Your task to perform on an android device: allow cookies in the chrome app Image 0: 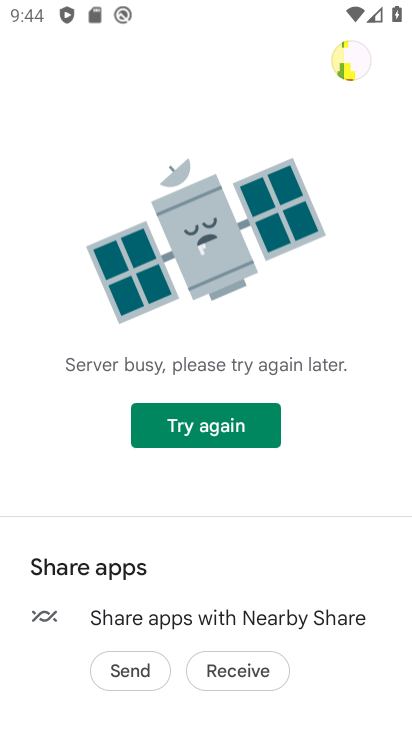
Step 0: press home button
Your task to perform on an android device: allow cookies in the chrome app Image 1: 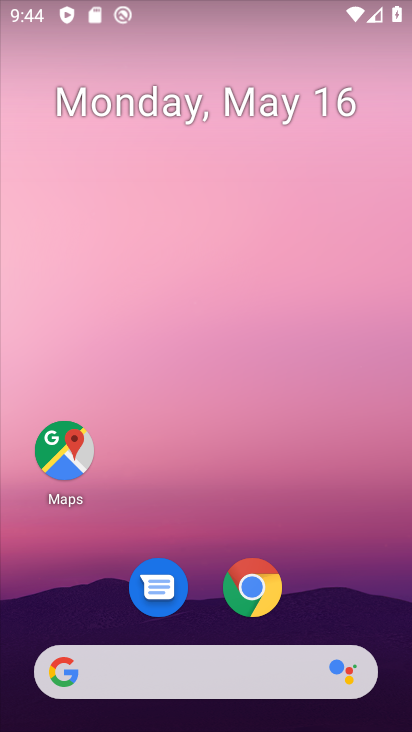
Step 1: click (266, 591)
Your task to perform on an android device: allow cookies in the chrome app Image 2: 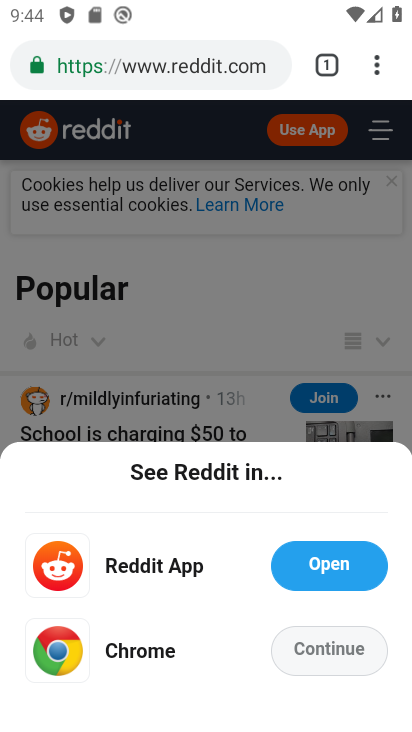
Step 2: click (325, 642)
Your task to perform on an android device: allow cookies in the chrome app Image 3: 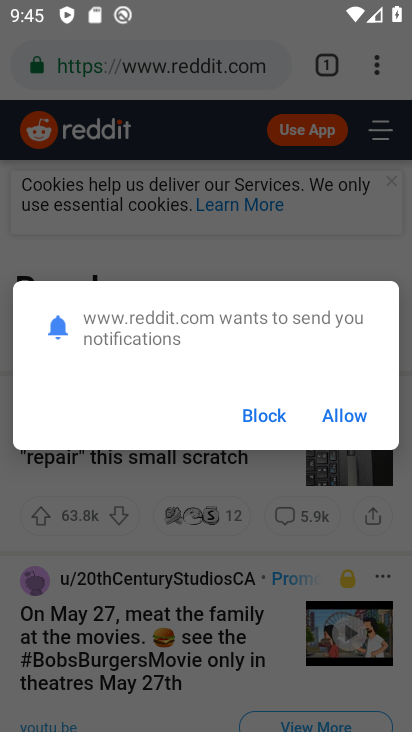
Step 3: click (355, 422)
Your task to perform on an android device: allow cookies in the chrome app Image 4: 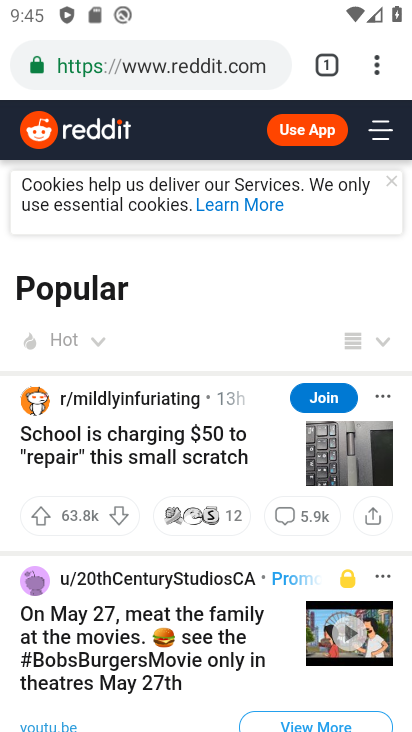
Step 4: click (369, 70)
Your task to perform on an android device: allow cookies in the chrome app Image 5: 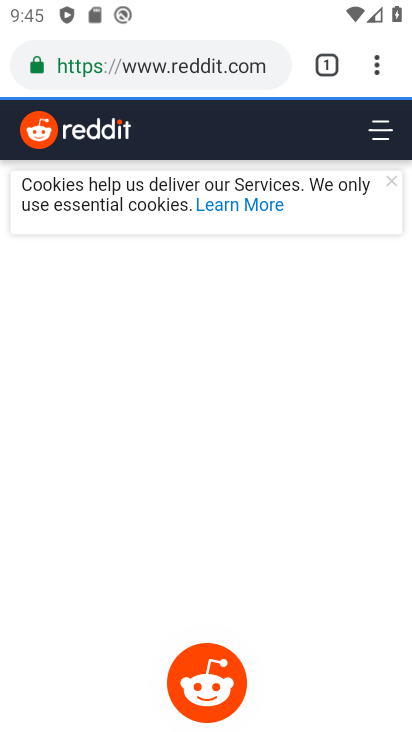
Step 5: drag from (378, 64) to (171, 639)
Your task to perform on an android device: allow cookies in the chrome app Image 6: 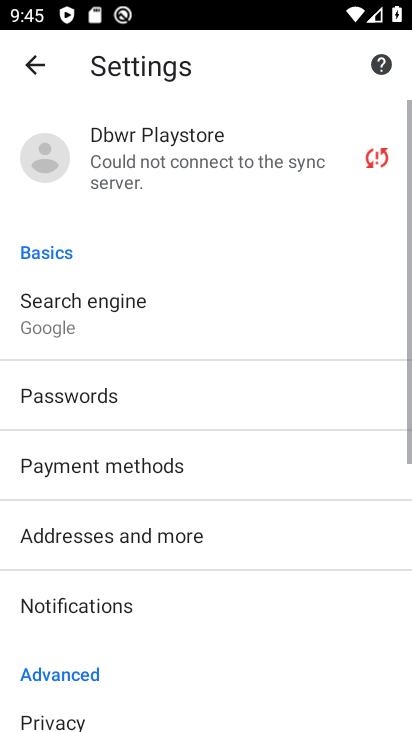
Step 6: drag from (171, 639) to (119, 176)
Your task to perform on an android device: allow cookies in the chrome app Image 7: 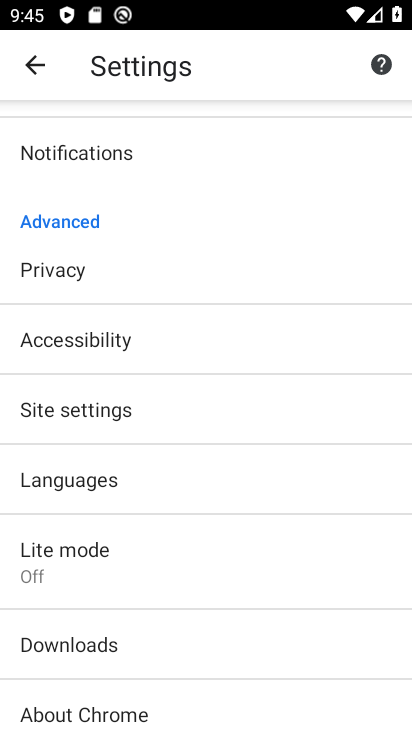
Step 7: click (94, 405)
Your task to perform on an android device: allow cookies in the chrome app Image 8: 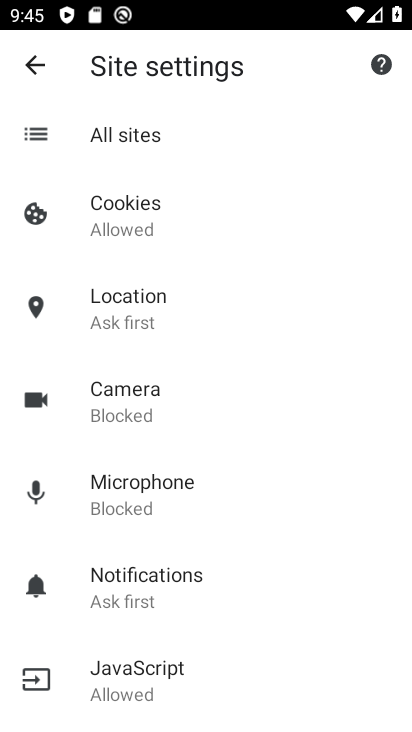
Step 8: click (117, 218)
Your task to perform on an android device: allow cookies in the chrome app Image 9: 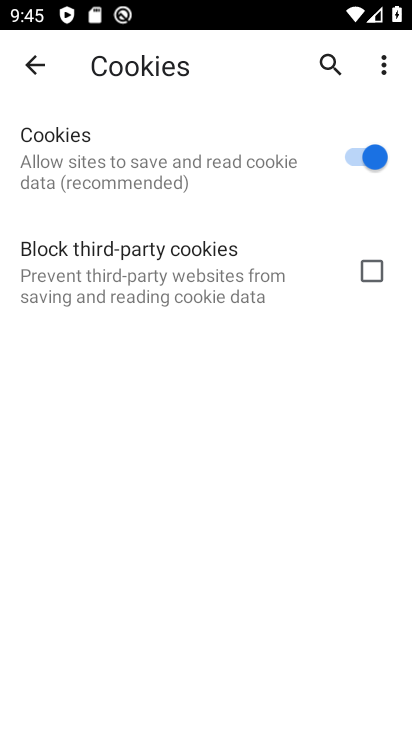
Step 9: task complete